Your task to perform on an android device: Search for seafood restaurants on Google Maps Image 0: 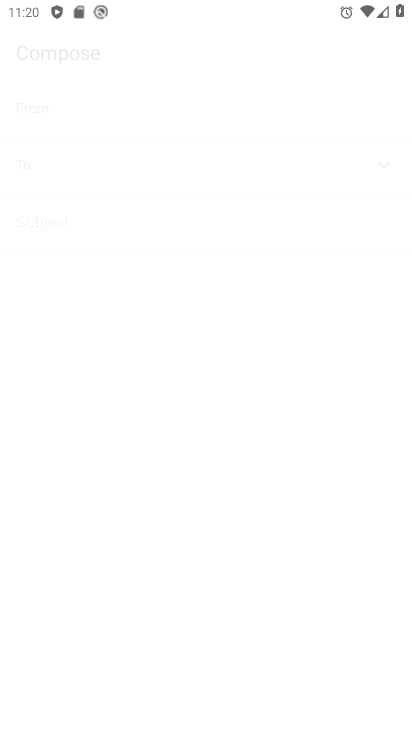
Step 0: press home button
Your task to perform on an android device: Search for seafood restaurants on Google Maps Image 1: 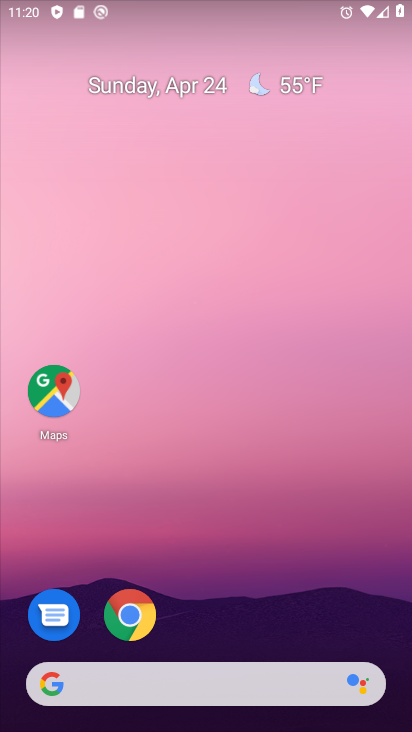
Step 1: drag from (223, 648) to (210, 2)
Your task to perform on an android device: Search for seafood restaurants on Google Maps Image 2: 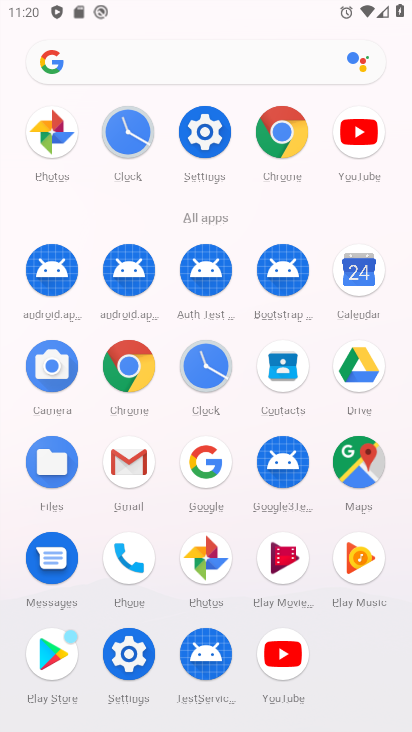
Step 2: click (364, 457)
Your task to perform on an android device: Search for seafood restaurants on Google Maps Image 3: 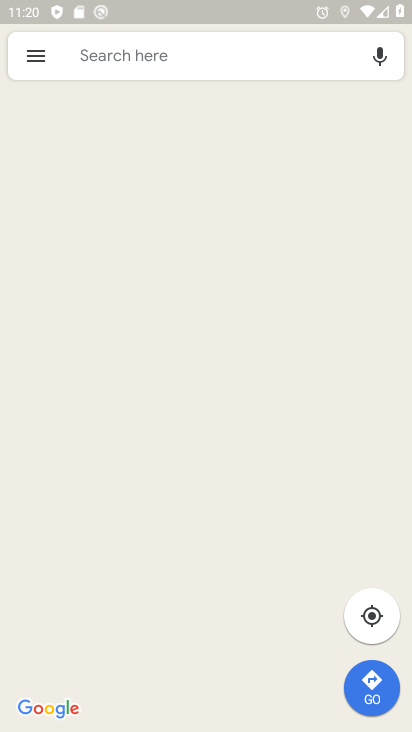
Step 3: click (132, 53)
Your task to perform on an android device: Search for seafood restaurants on Google Maps Image 4: 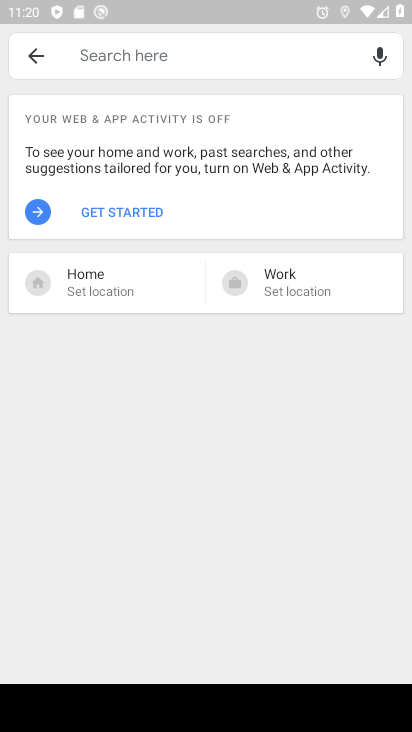
Step 4: type "seafood"
Your task to perform on an android device: Search for seafood restaurants on Google Maps Image 5: 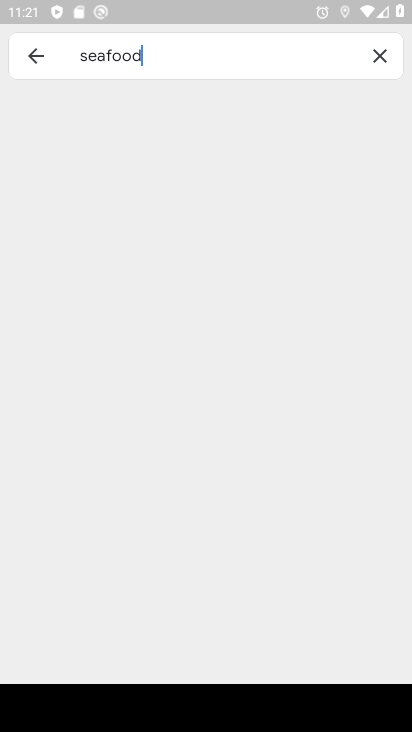
Step 5: click (374, 53)
Your task to perform on an android device: Search for seafood restaurants on Google Maps Image 6: 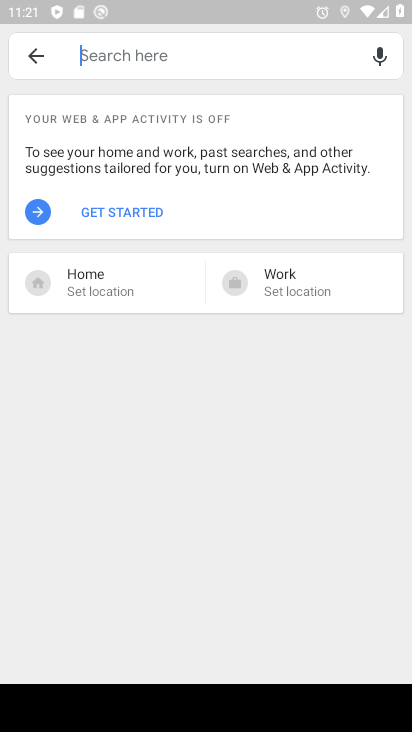
Step 6: click (119, 52)
Your task to perform on an android device: Search for seafood restaurants on Google Maps Image 7: 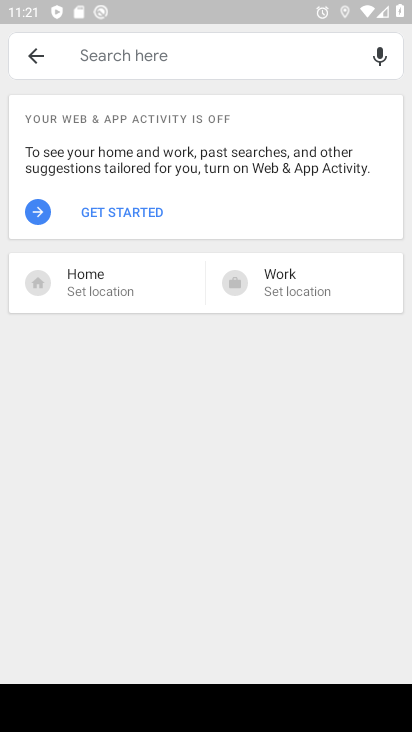
Step 7: type "seafood"
Your task to perform on an android device: Search for seafood restaurants on Google Maps Image 8: 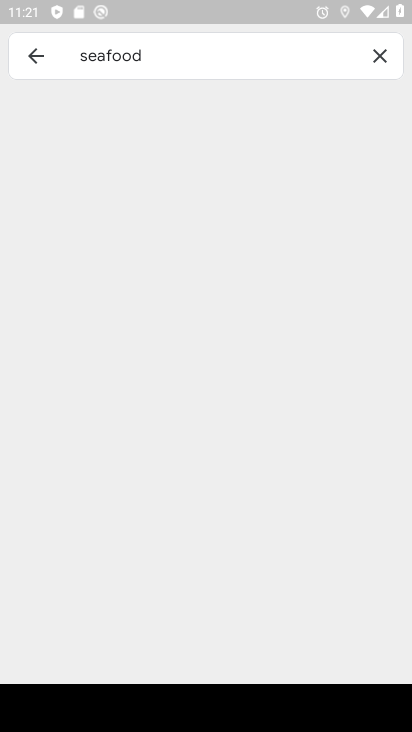
Step 8: click (151, 57)
Your task to perform on an android device: Search for seafood restaurants on Google Maps Image 9: 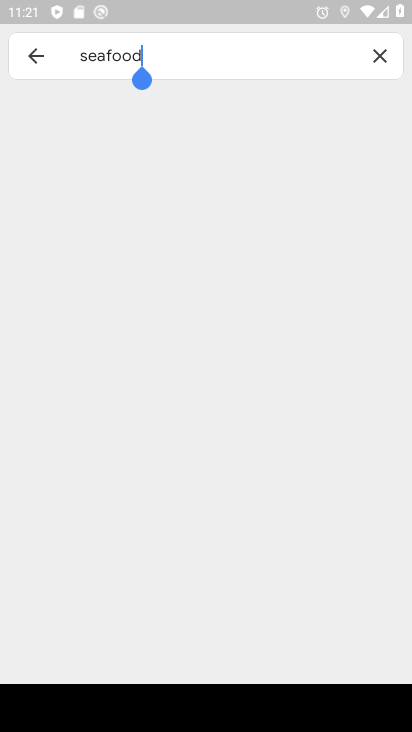
Step 9: type ""
Your task to perform on an android device: Search for seafood restaurants on Google Maps Image 10: 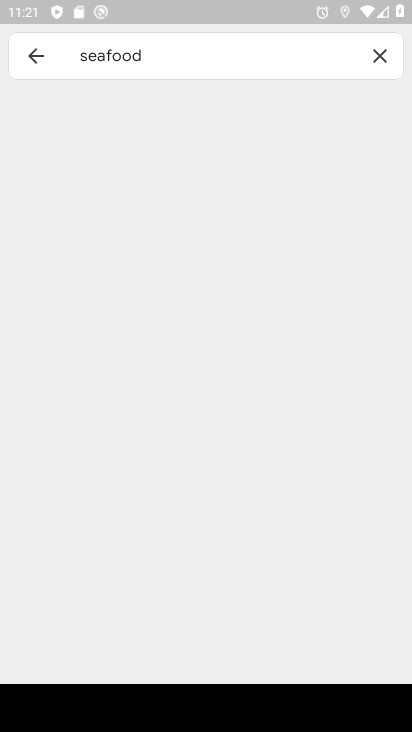
Step 10: task complete